Your task to perform on an android device: change text size in settings app Image 0: 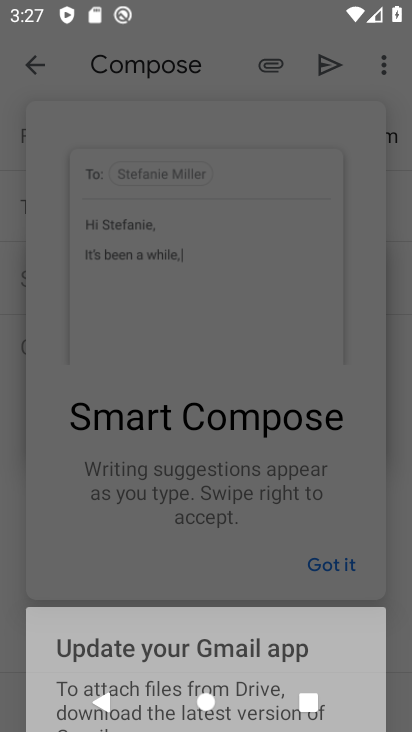
Step 0: click (332, 562)
Your task to perform on an android device: change text size in settings app Image 1: 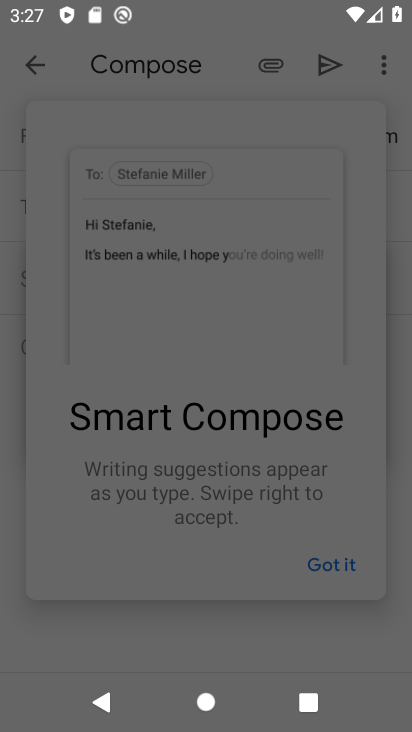
Step 1: press home button
Your task to perform on an android device: change text size in settings app Image 2: 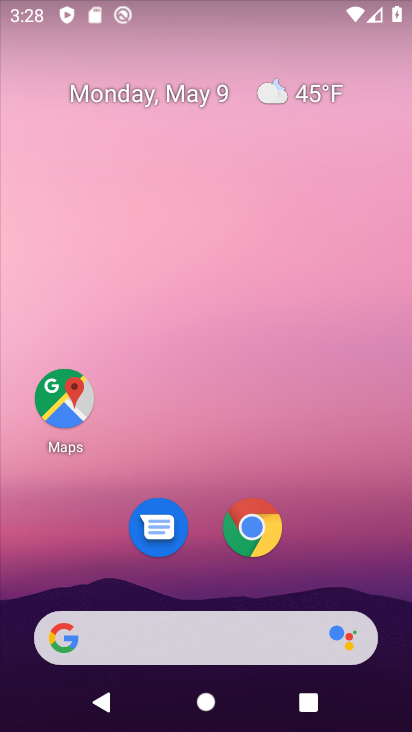
Step 2: drag from (348, 576) to (215, 81)
Your task to perform on an android device: change text size in settings app Image 3: 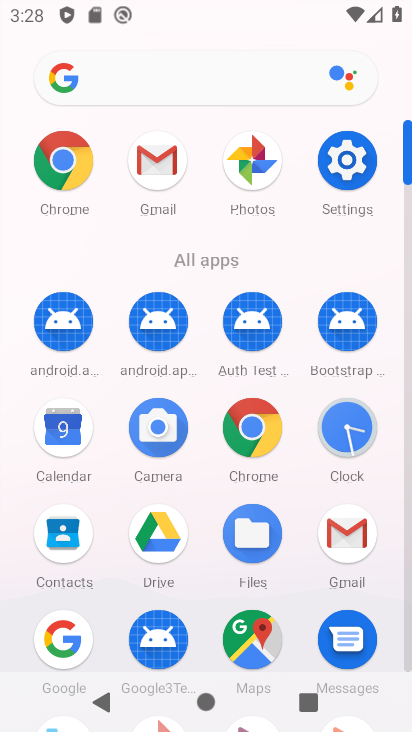
Step 3: click (363, 174)
Your task to perform on an android device: change text size in settings app Image 4: 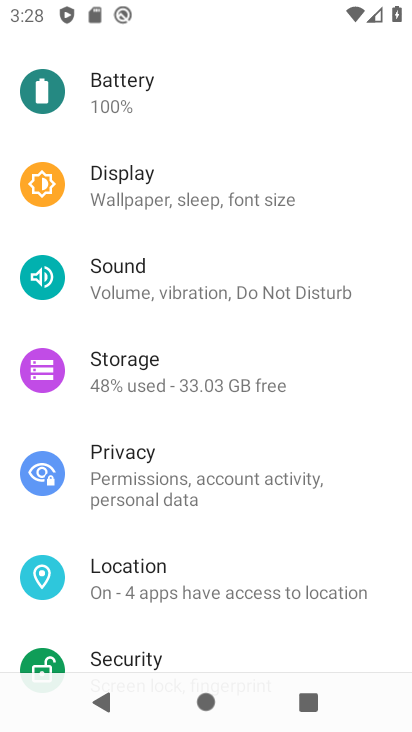
Step 4: click (210, 207)
Your task to perform on an android device: change text size in settings app Image 5: 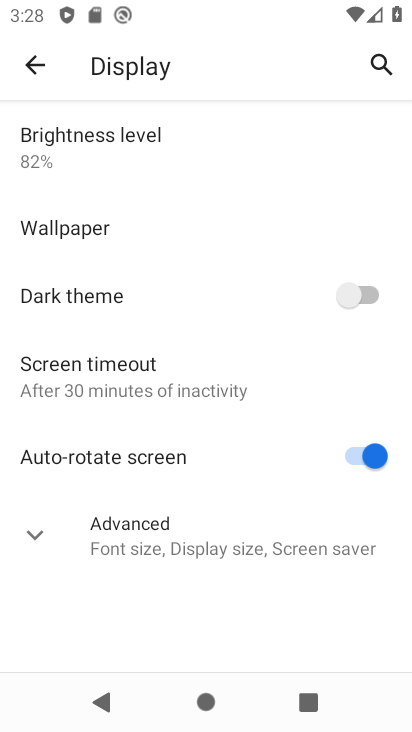
Step 5: click (200, 544)
Your task to perform on an android device: change text size in settings app Image 6: 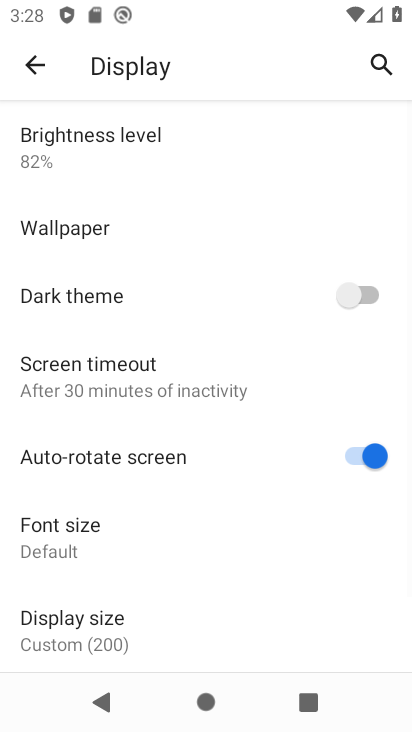
Step 6: click (201, 552)
Your task to perform on an android device: change text size in settings app Image 7: 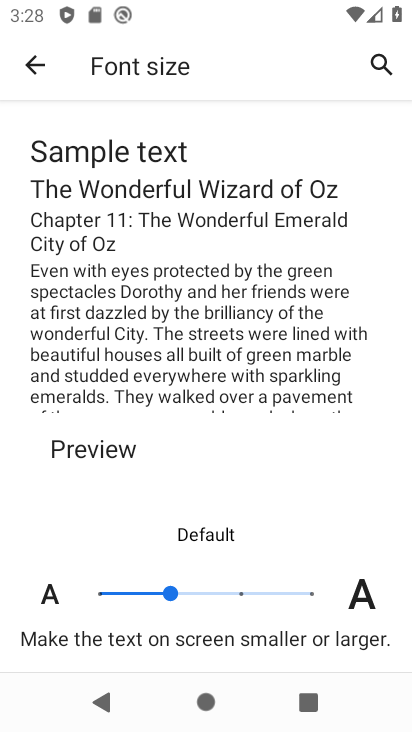
Step 7: click (230, 586)
Your task to perform on an android device: change text size in settings app Image 8: 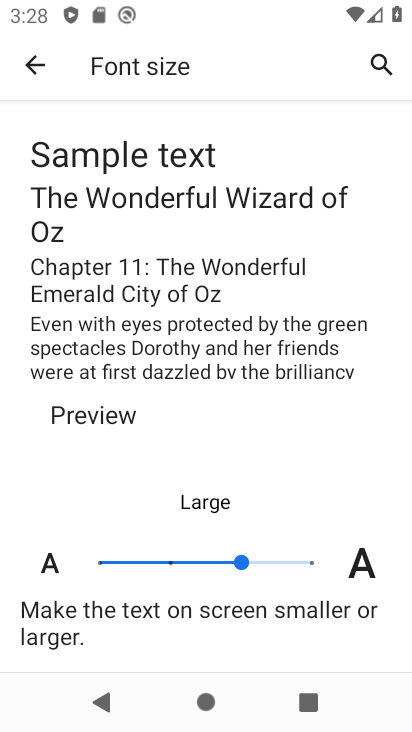
Step 8: task complete